Your task to perform on an android device: What's the weather? Image 0: 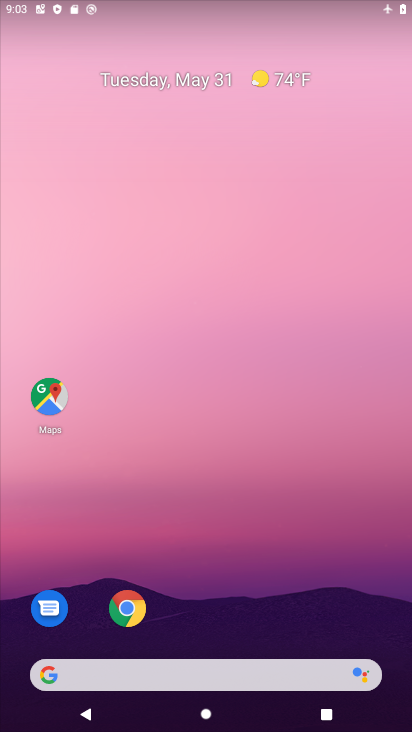
Step 0: click (138, 668)
Your task to perform on an android device: What's the weather? Image 1: 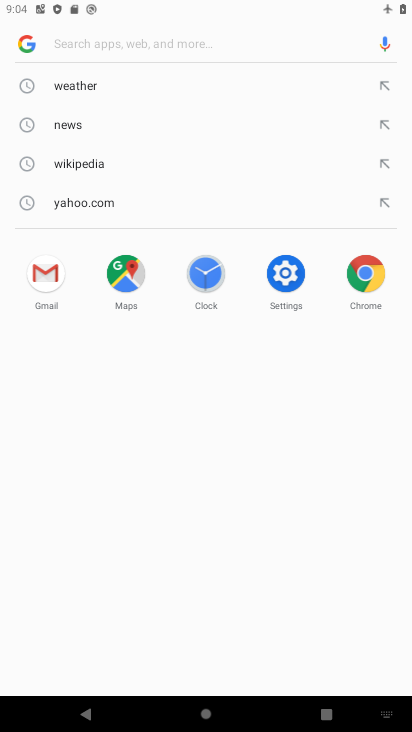
Step 1: click (128, 72)
Your task to perform on an android device: What's the weather? Image 2: 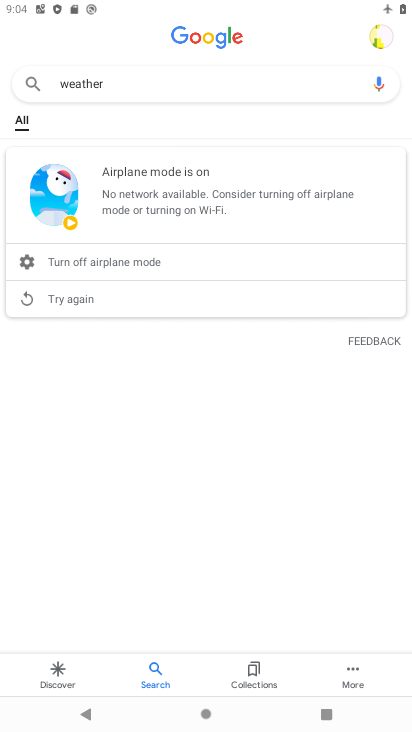
Step 2: task complete